Your task to perform on an android device: Open Yahoo.com Image 0: 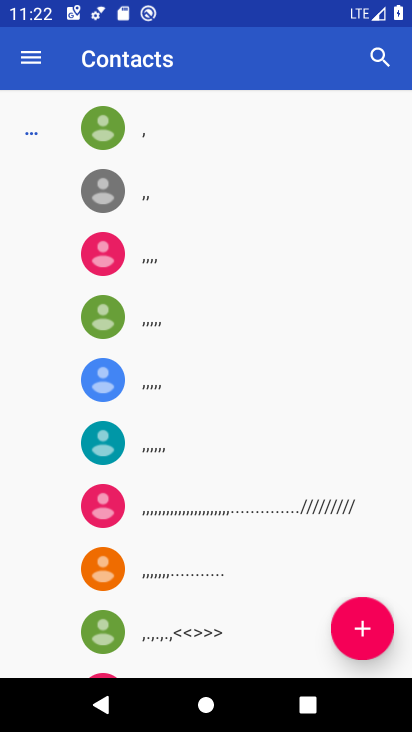
Step 0: press home button
Your task to perform on an android device: Open Yahoo.com Image 1: 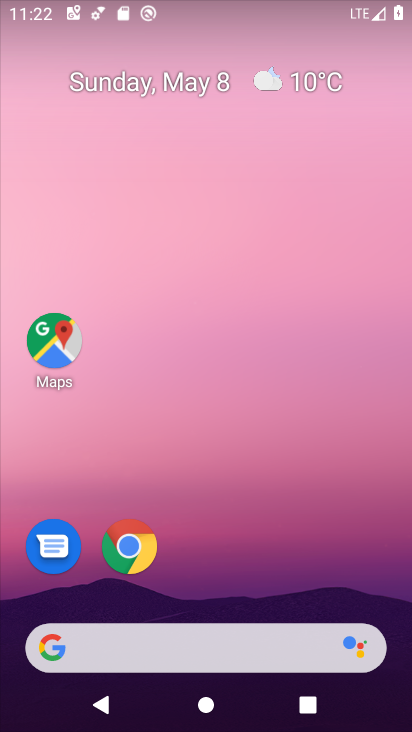
Step 1: click (125, 544)
Your task to perform on an android device: Open Yahoo.com Image 2: 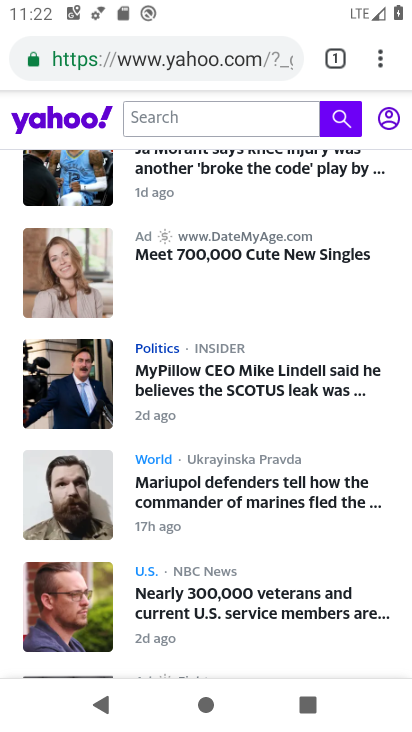
Step 2: task complete